Your task to perform on an android device: snooze an email in the gmail app Image 0: 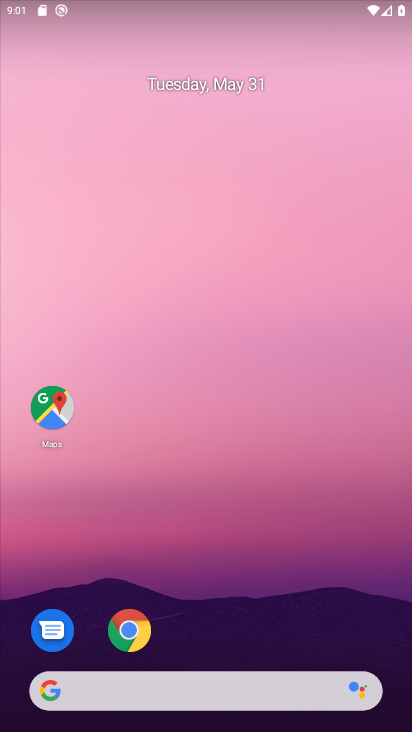
Step 0: drag from (237, 651) to (301, 87)
Your task to perform on an android device: snooze an email in the gmail app Image 1: 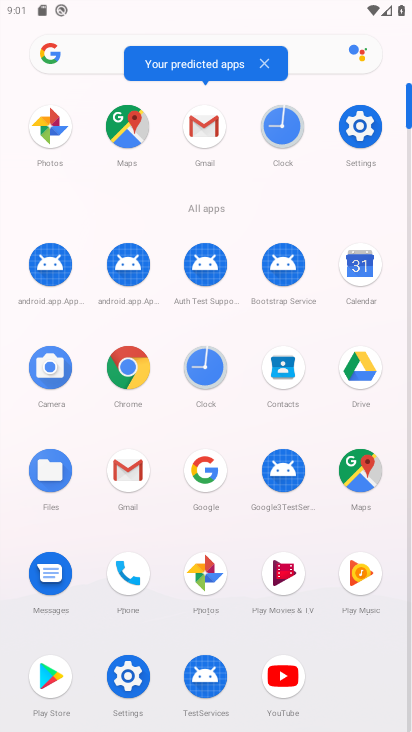
Step 1: click (125, 472)
Your task to perform on an android device: snooze an email in the gmail app Image 2: 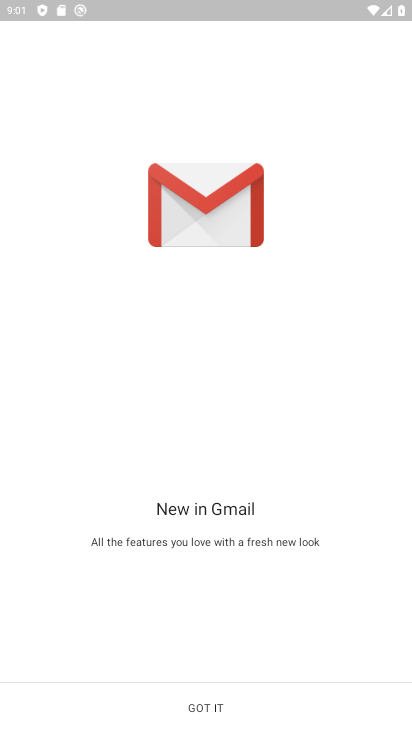
Step 2: click (265, 695)
Your task to perform on an android device: snooze an email in the gmail app Image 3: 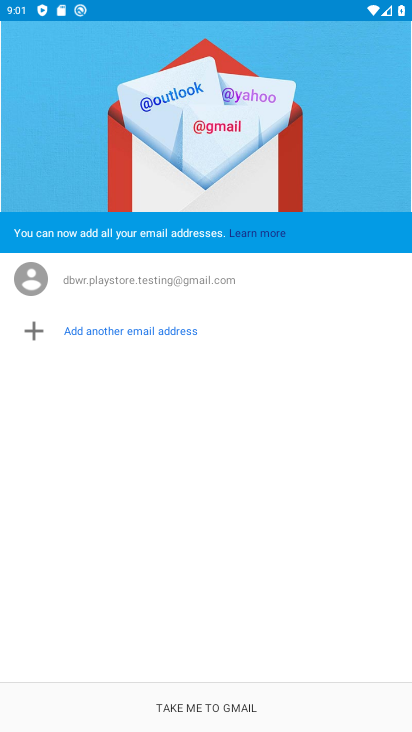
Step 3: click (248, 699)
Your task to perform on an android device: snooze an email in the gmail app Image 4: 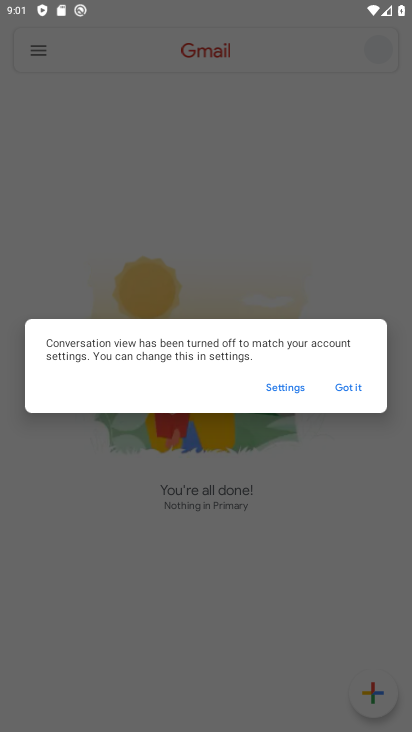
Step 4: click (359, 387)
Your task to perform on an android device: snooze an email in the gmail app Image 5: 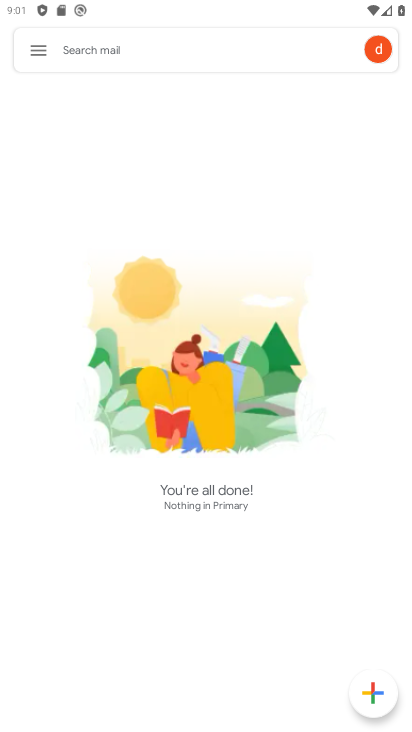
Step 5: click (44, 49)
Your task to perform on an android device: snooze an email in the gmail app Image 6: 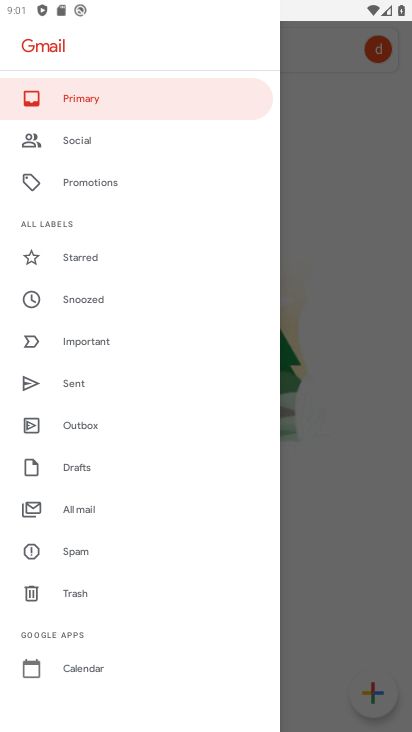
Step 6: click (66, 509)
Your task to perform on an android device: snooze an email in the gmail app Image 7: 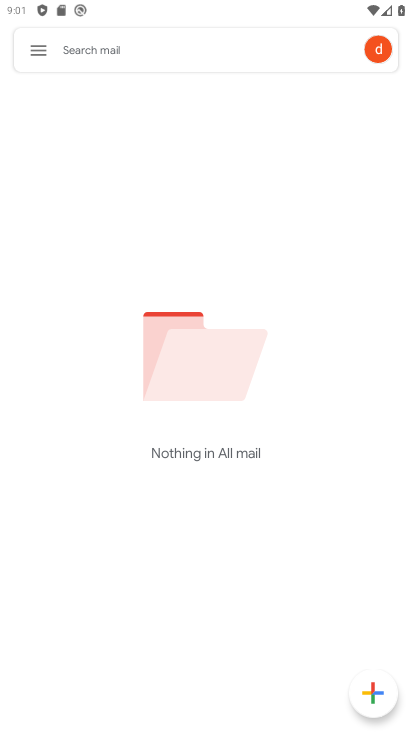
Step 7: task complete